Your task to perform on an android device: change text size in settings app Image 0: 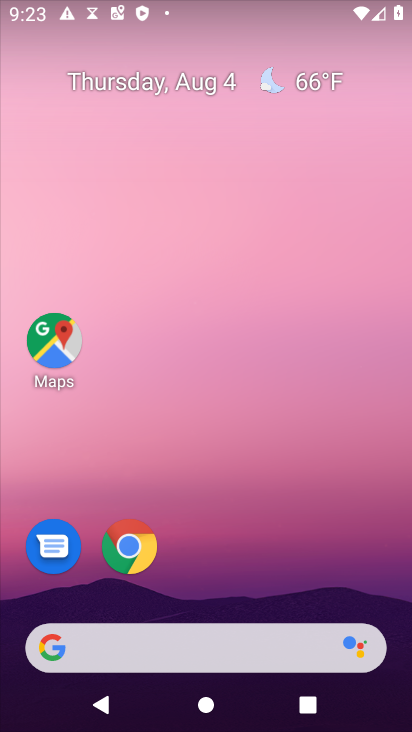
Step 0: press home button
Your task to perform on an android device: change text size in settings app Image 1: 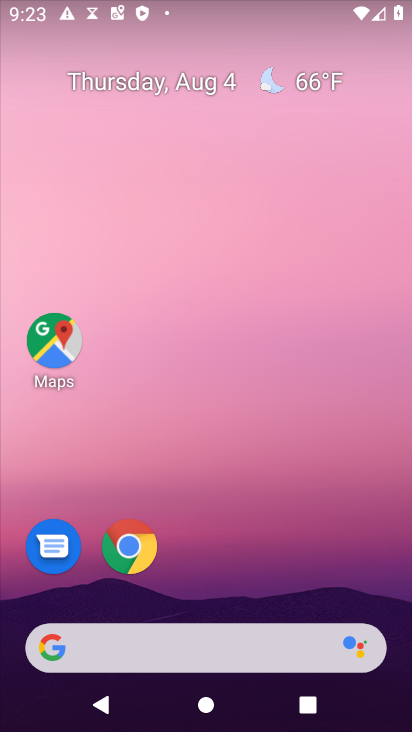
Step 1: drag from (211, 614) to (351, 63)
Your task to perform on an android device: change text size in settings app Image 2: 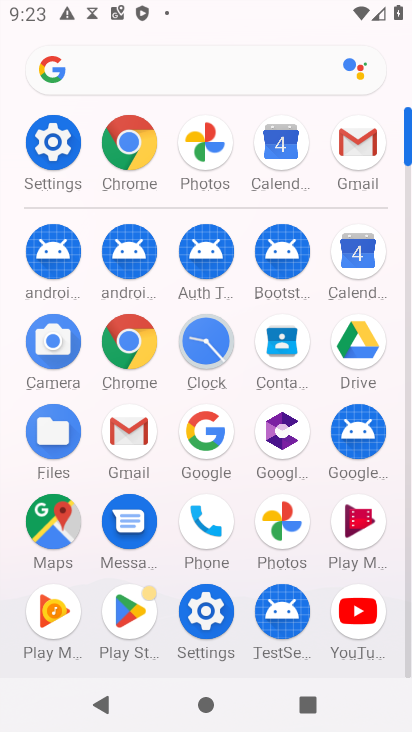
Step 2: click (57, 137)
Your task to perform on an android device: change text size in settings app Image 3: 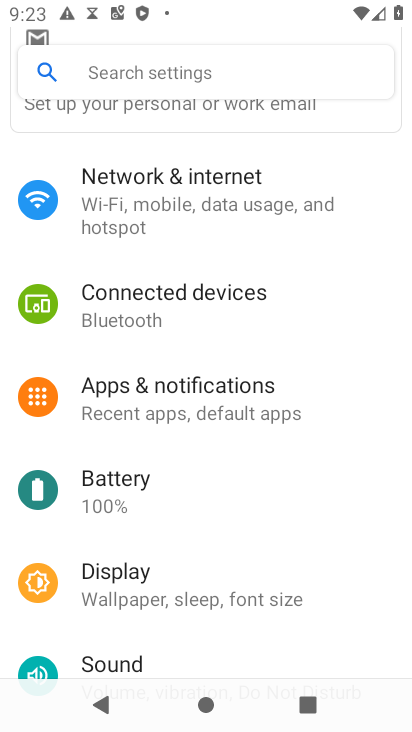
Step 3: drag from (301, 514) to (331, 157)
Your task to perform on an android device: change text size in settings app Image 4: 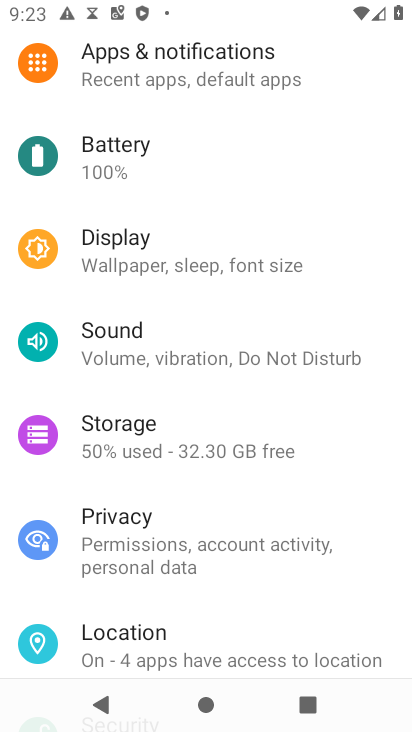
Step 4: drag from (341, 585) to (335, 239)
Your task to perform on an android device: change text size in settings app Image 5: 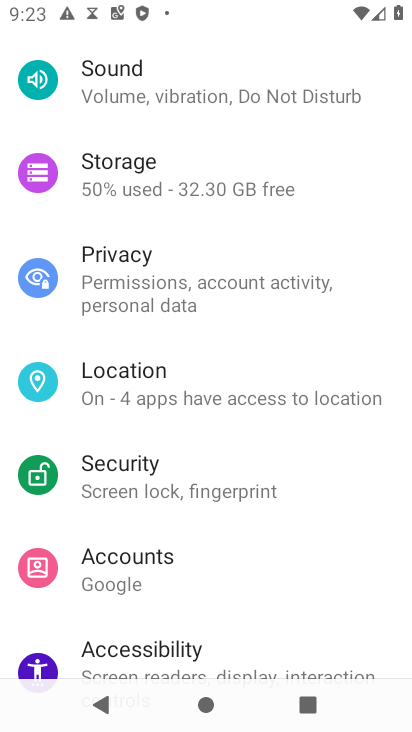
Step 5: drag from (298, 229) to (208, 722)
Your task to perform on an android device: change text size in settings app Image 6: 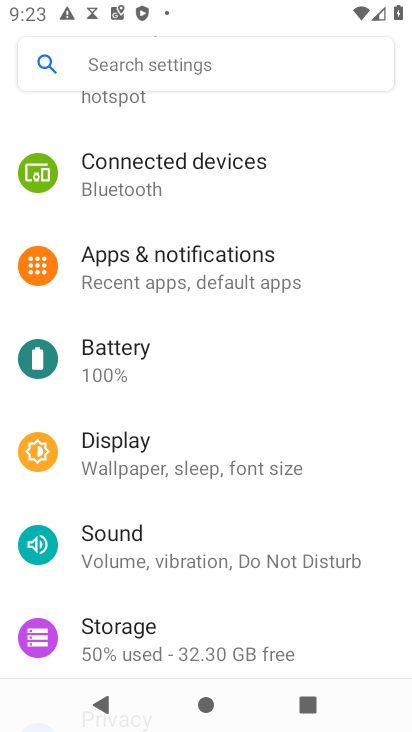
Step 6: click (120, 460)
Your task to perform on an android device: change text size in settings app Image 7: 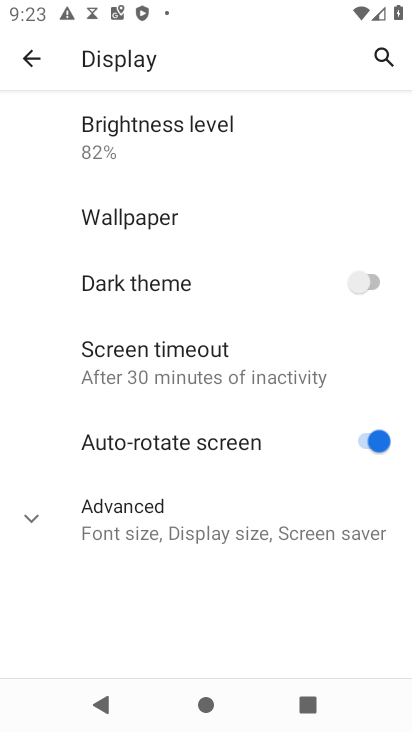
Step 7: click (170, 541)
Your task to perform on an android device: change text size in settings app Image 8: 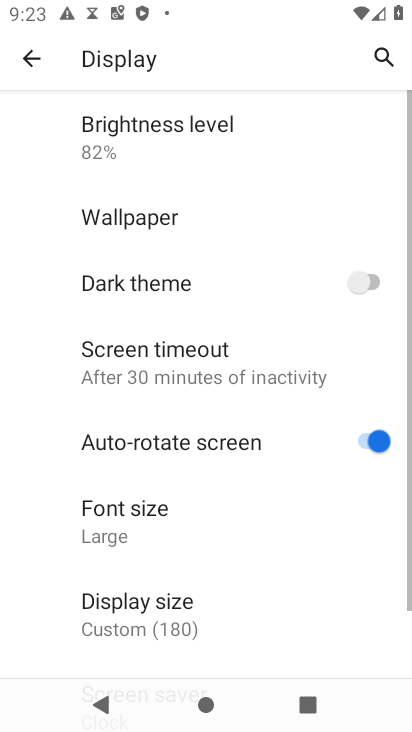
Step 8: click (137, 529)
Your task to perform on an android device: change text size in settings app Image 9: 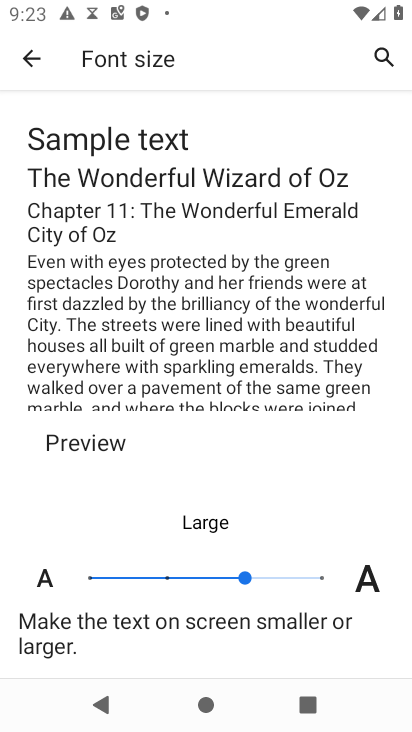
Step 9: click (188, 579)
Your task to perform on an android device: change text size in settings app Image 10: 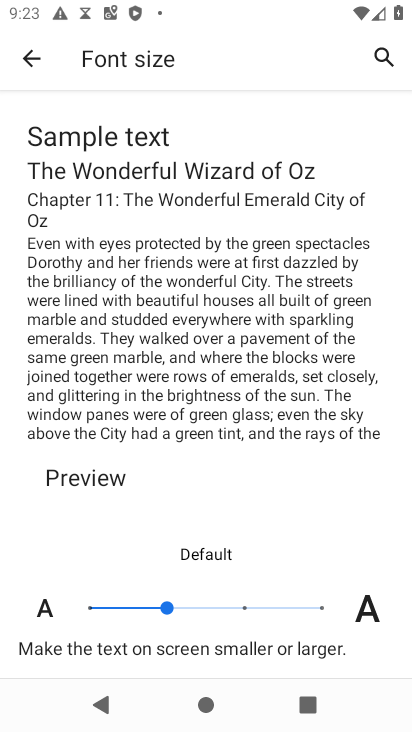
Step 10: click (246, 605)
Your task to perform on an android device: change text size in settings app Image 11: 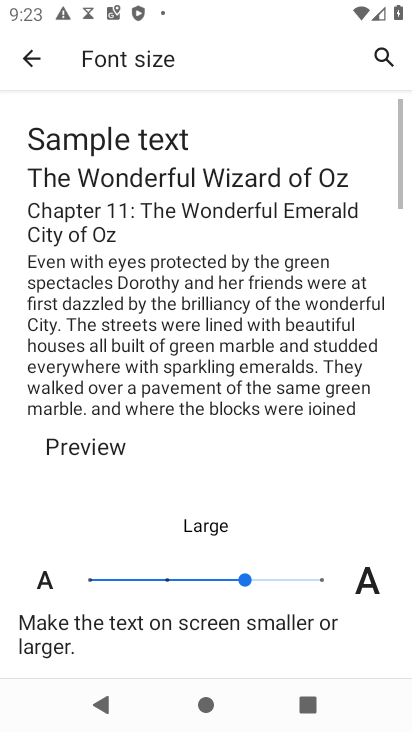
Step 11: click (321, 608)
Your task to perform on an android device: change text size in settings app Image 12: 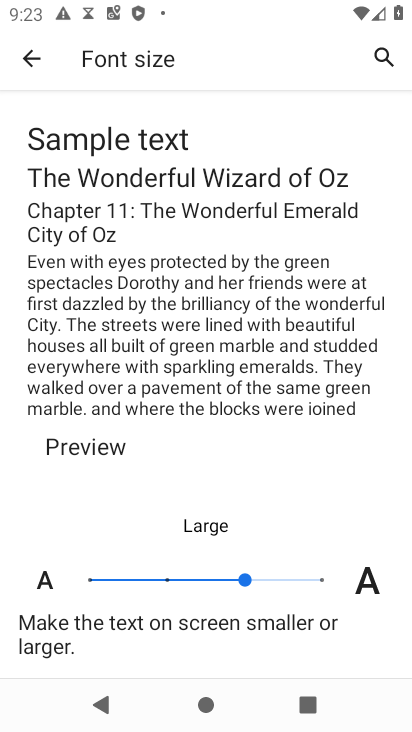
Step 12: click (321, 577)
Your task to perform on an android device: change text size in settings app Image 13: 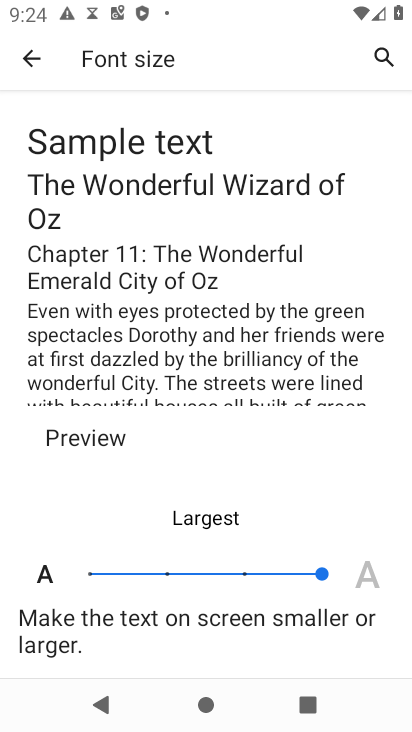
Step 13: task complete